Your task to perform on an android device: empty trash in google photos Image 0: 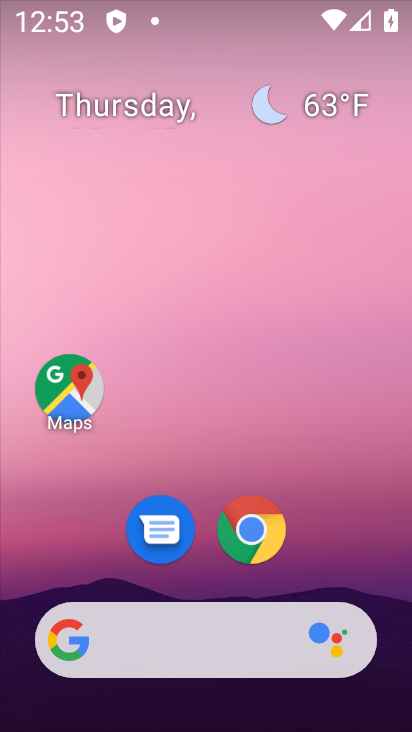
Step 0: drag from (304, 549) to (254, 39)
Your task to perform on an android device: empty trash in google photos Image 1: 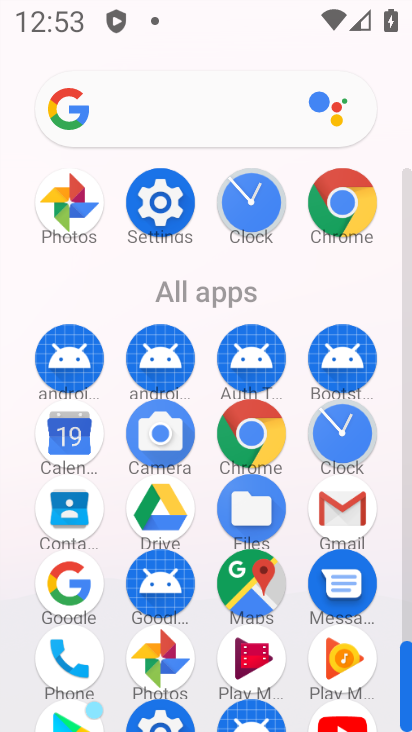
Step 1: click (69, 204)
Your task to perform on an android device: empty trash in google photos Image 2: 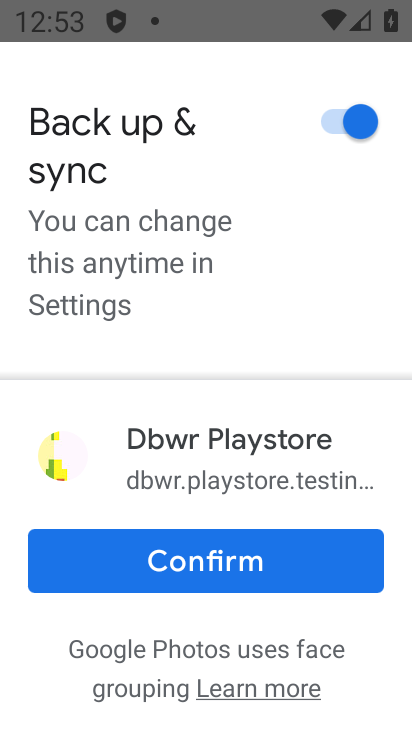
Step 2: click (197, 556)
Your task to perform on an android device: empty trash in google photos Image 3: 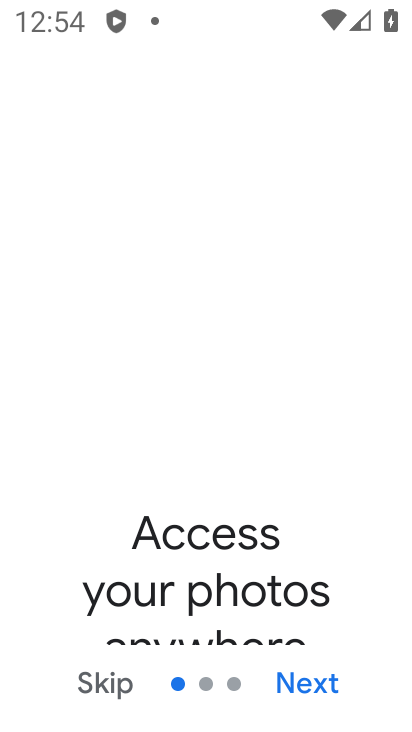
Step 3: click (314, 678)
Your task to perform on an android device: empty trash in google photos Image 4: 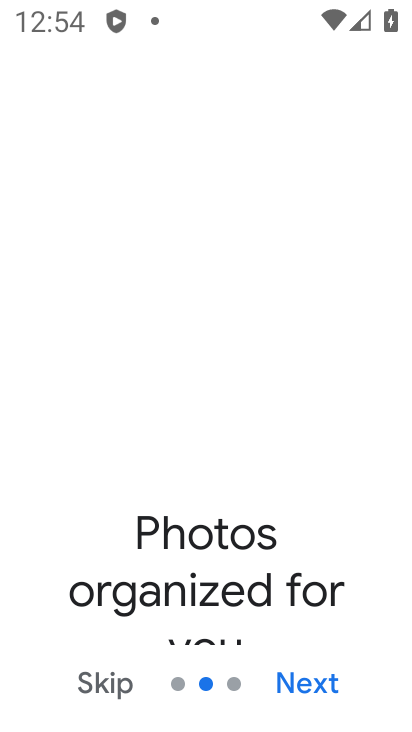
Step 4: click (314, 678)
Your task to perform on an android device: empty trash in google photos Image 5: 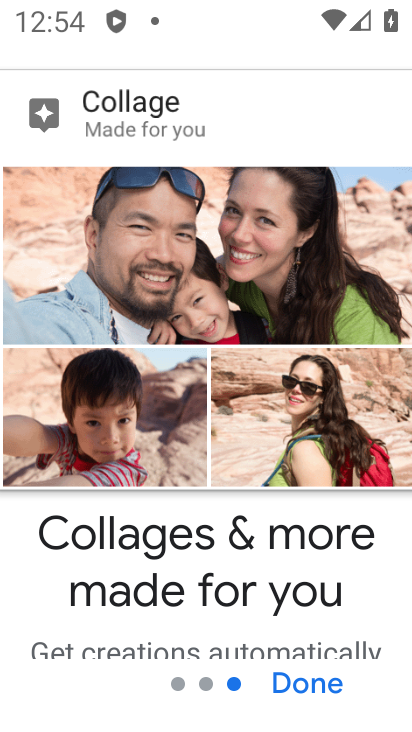
Step 5: click (308, 685)
Your task to perform on an android device: empty trash in google photos Image 6: 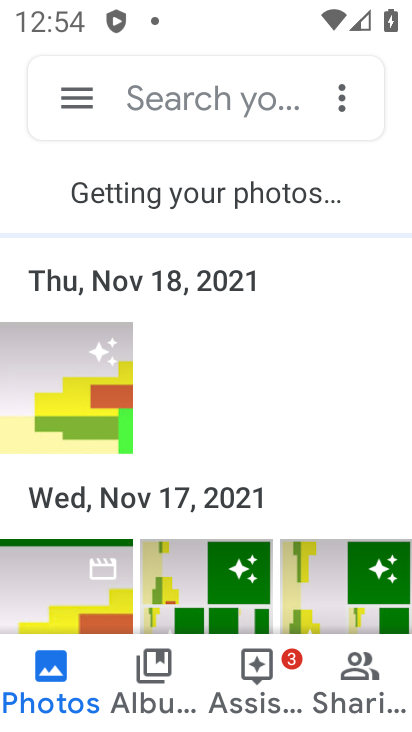
Step 6: click (74, 95)
Your task to perform on an android device: empty trash in google photos Image 7: 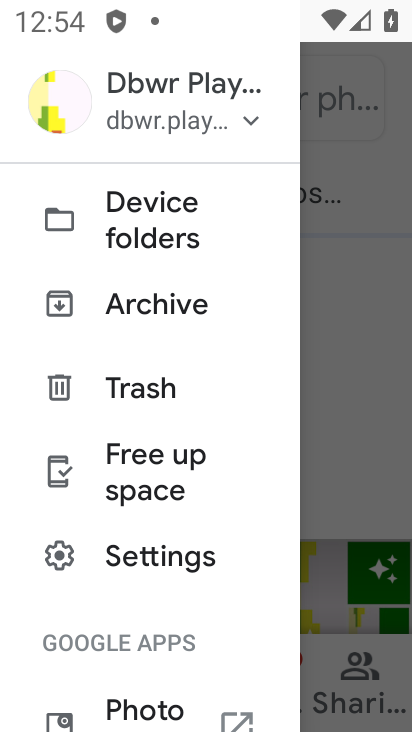
Step 7: click (148, 387)
Your task to perform on an android device: empty trash in google photos Image 8: 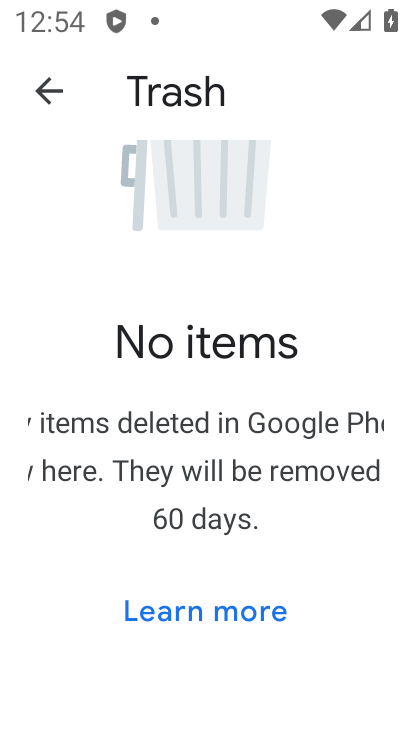
Step 8: task complete